Your task to perform on an android device: What's on my calendar tomorrow? Image 0: 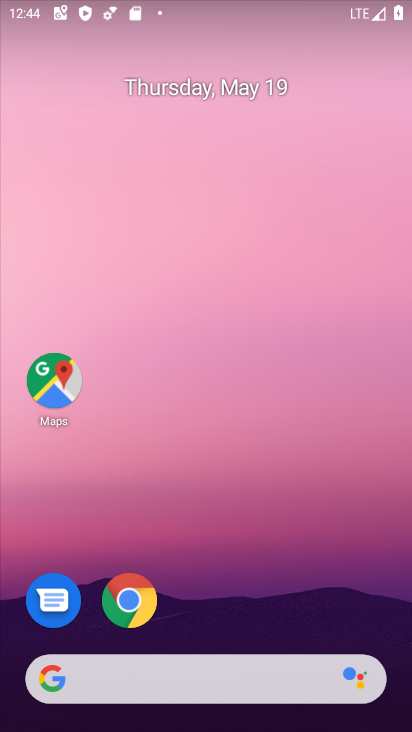
Step 0: drag from (285, 554) to (278, 12)
Your task to perform on an android device: What's on my calendar tomorrow? Image 1: 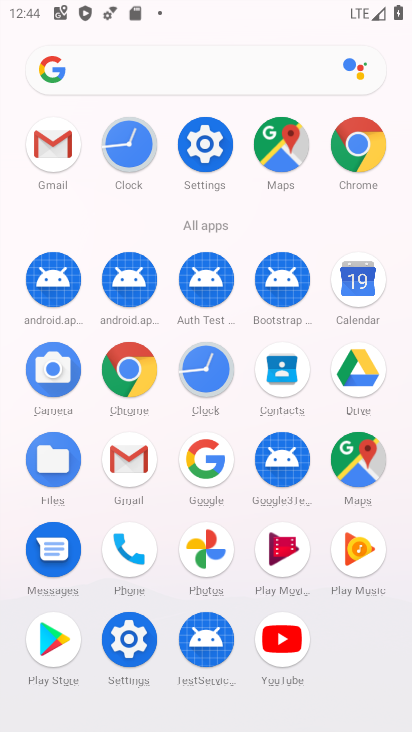
Step 1: click (359, 283)
Your task to perform on an android device: What's on my calendar tomorrow? Image 2: 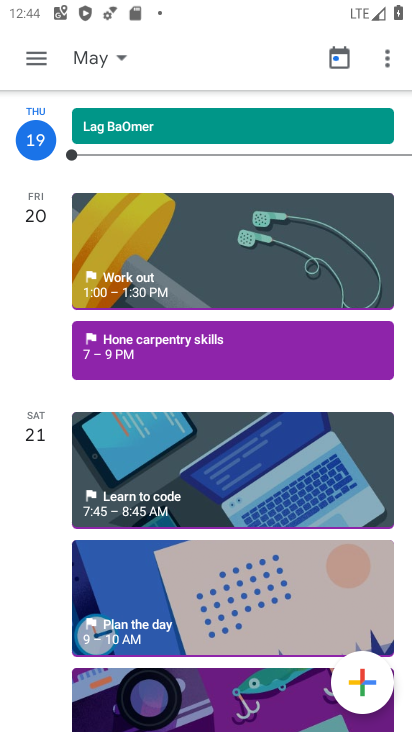
Step 2: click (113, 54)
Your task to perform on an android device: What's on my calendar tomorrow? Image 3: 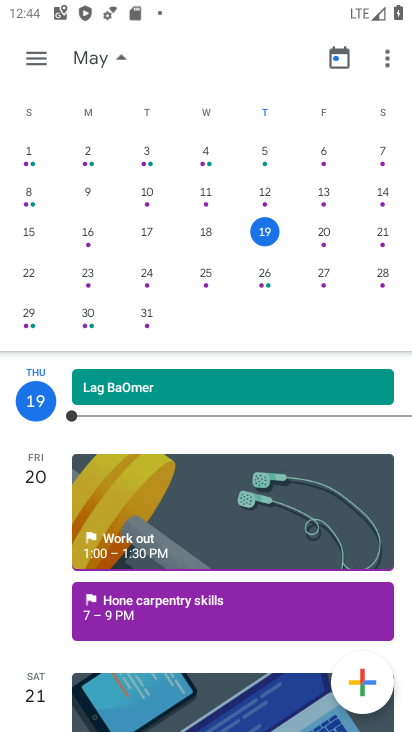
Step 3: click (326, 237)
Your task to perform on an android device: What's on my calendar tomorrow? Image 4: 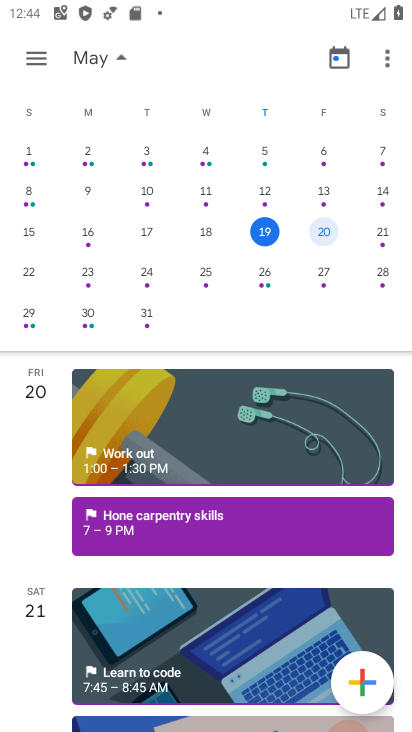
Step 4: click (326, 237)
Your task to perform on an android device: What's on my calendar tomorrow? Image 5: 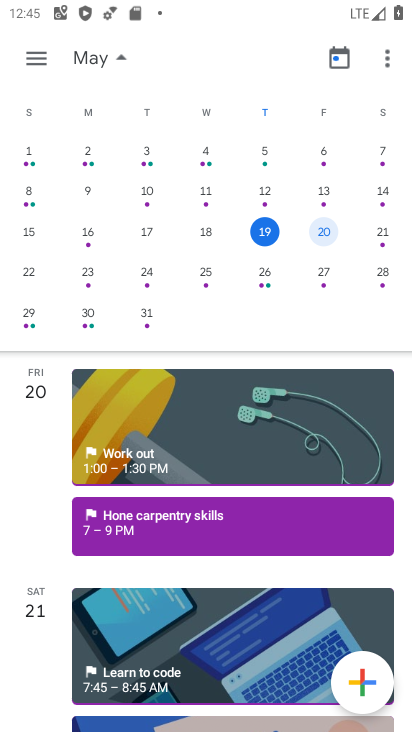
Step 5: task complete